Your task to perform on an android device: turn vacation reply on in the gmail app Image 0: 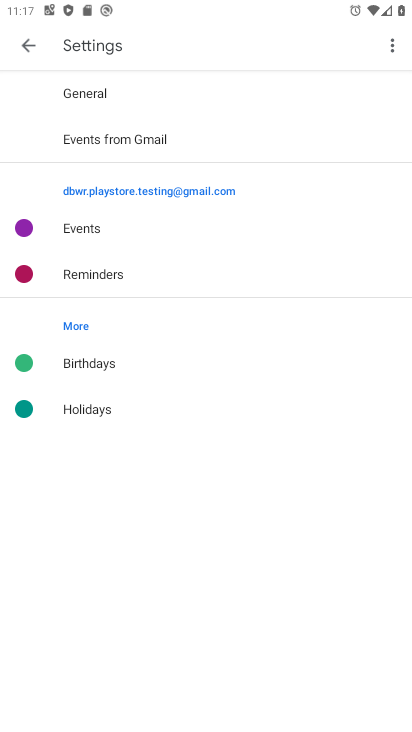
Step 0: press home button
Your task to perform on an android device: turn vacation reply on in the gmail app Image 1: 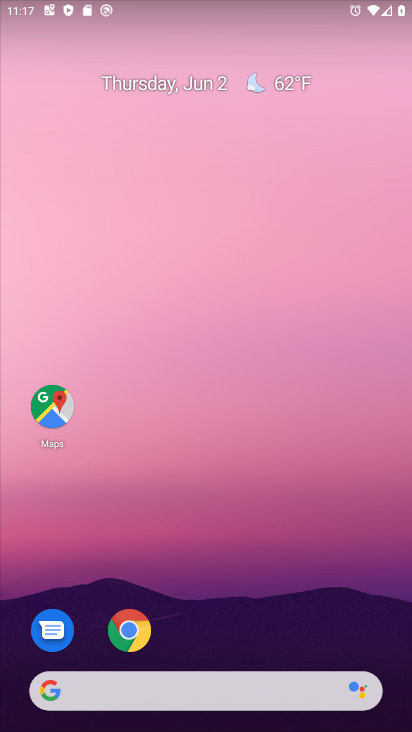
Step 1: drag from (162, 703) to (251, 128)
Your task to perform on an android device: turn vacation reply on in the gmail app Image 2: 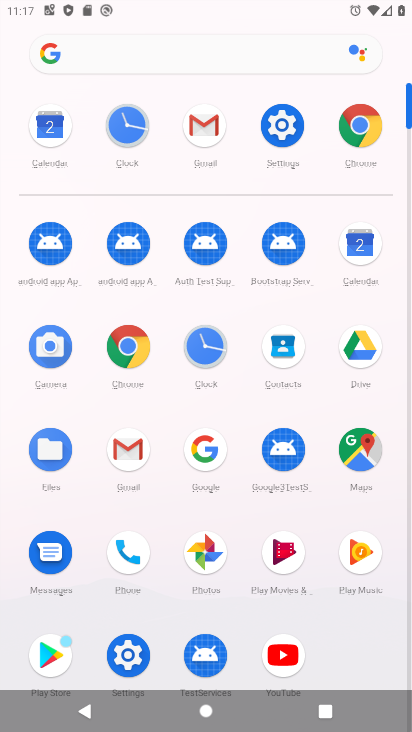
Step 2: click (206, 132)
Your task to perform on an android device: turn vacation reply on in the gmail app Image 3: 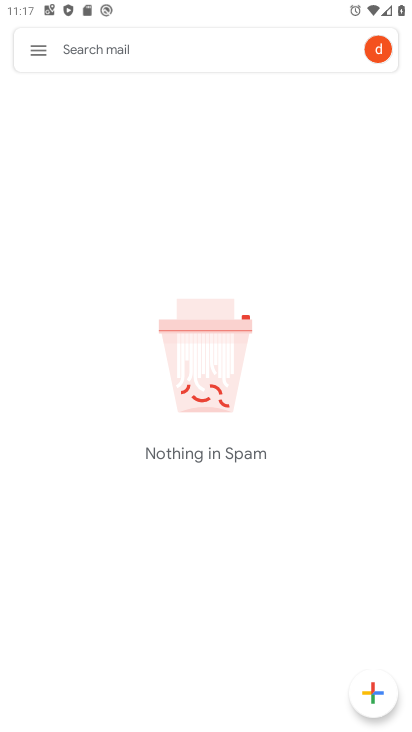
Step 3: click (40, 42)
Your task to perform on an android device: turn vacation reply on in the gmail app Image 4: 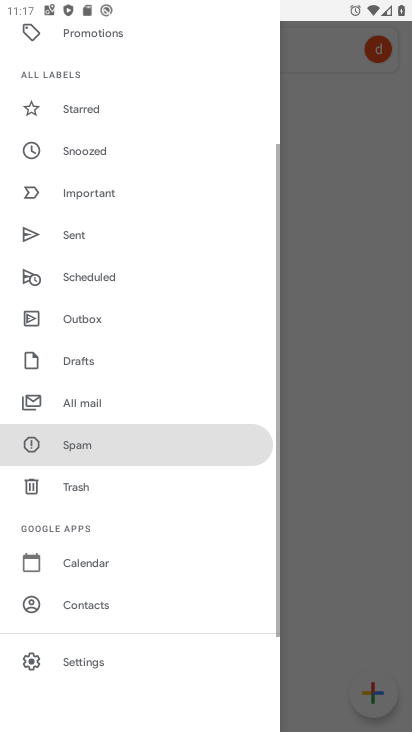
Step 4: drag from (178, 577) to (238, 178)
Your task to perform on an android device: turn vacation reply on in the gmail app Image 5: 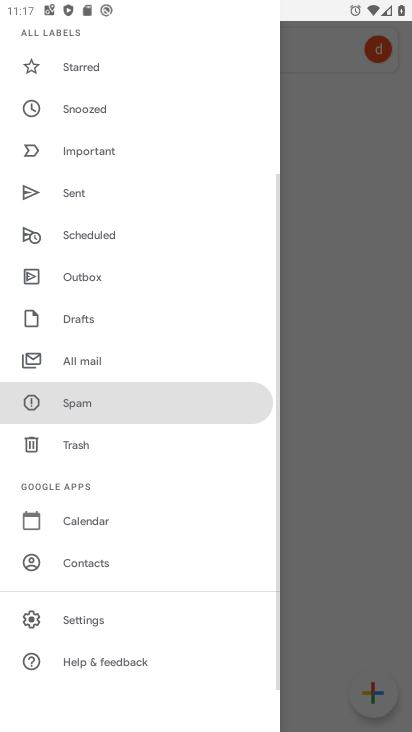
Step 5: click (107, 620)
Your task to perform on an android device: turn vacation reply on in the gmail app Image 6: 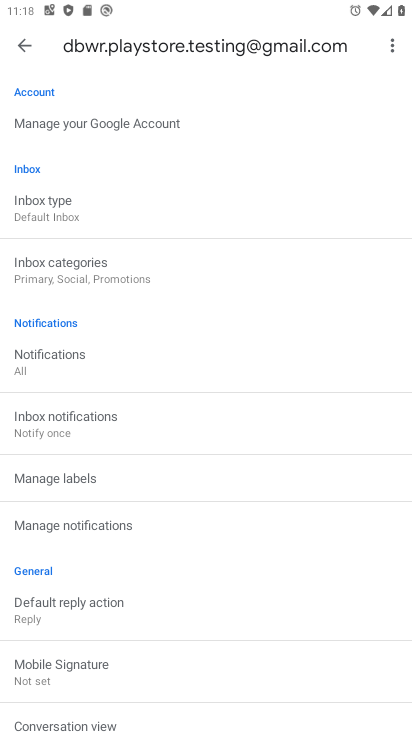
Step 6: drag from (218, 424) to (319, 108)
Your task to perform on an android device: turn vacation reply on in the gmail app Image 7: 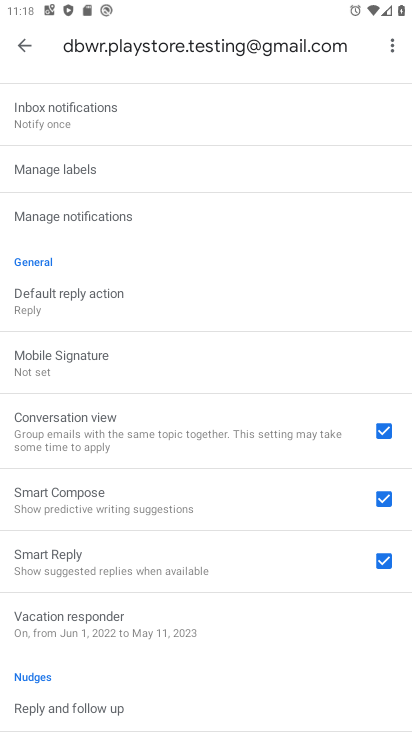
Step 7: drag from (213, 639) to (253, 313)
Your task to perform on an android device: turn vacation reply on in the gmail app Image 8: 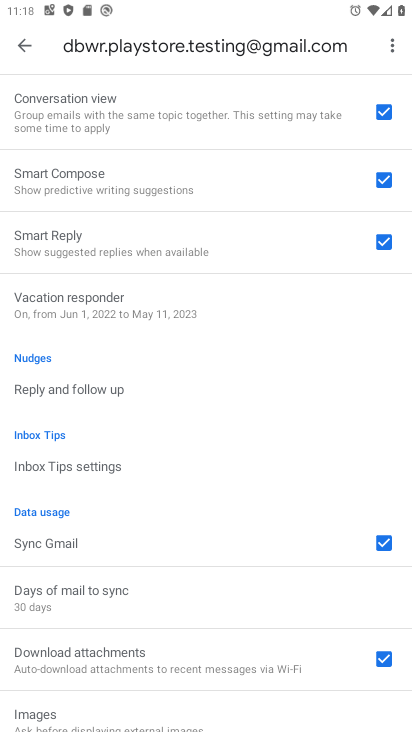
Step 8: click (105, 299)
Your task to perform on an android device: turn vacation reply on in the gmail app Image 9: 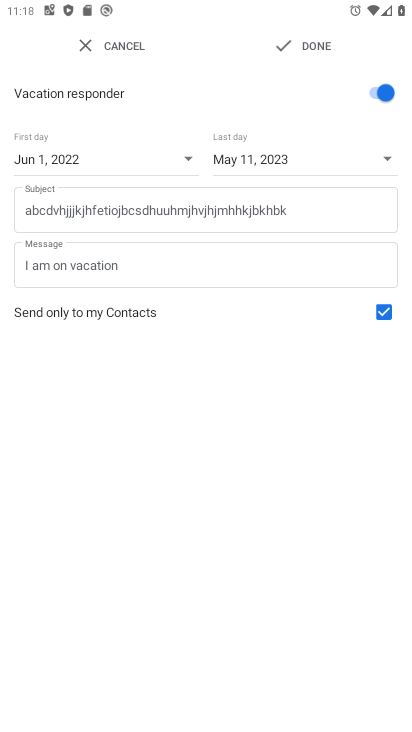
Step 9: task complete